Your task to perform on an android device: Open location settings Image 0: 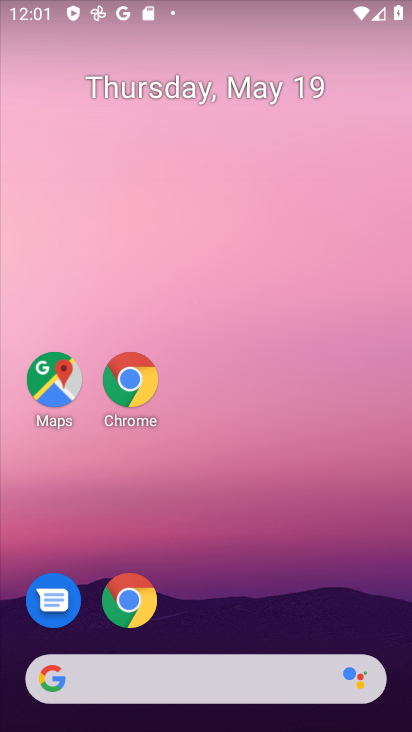
Step 0: drag from (408, 626) to (70, 6)
Your task to perform on an android device: Open location settings Image 1: 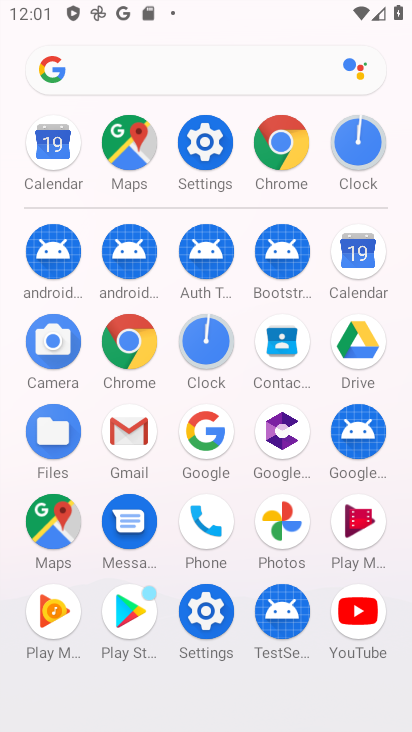
Step 1: click (218, 616)
Your task to perform on an android device: Open location settings Image 2: 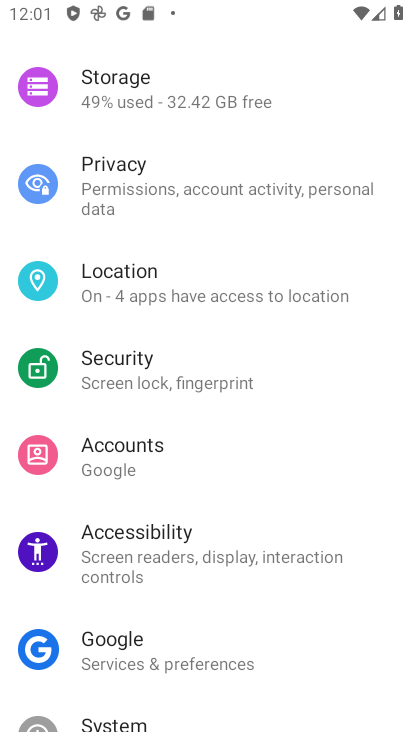
Step 2: click (127, 293)
Your task to perform on an android device: Open location settings Image 3: 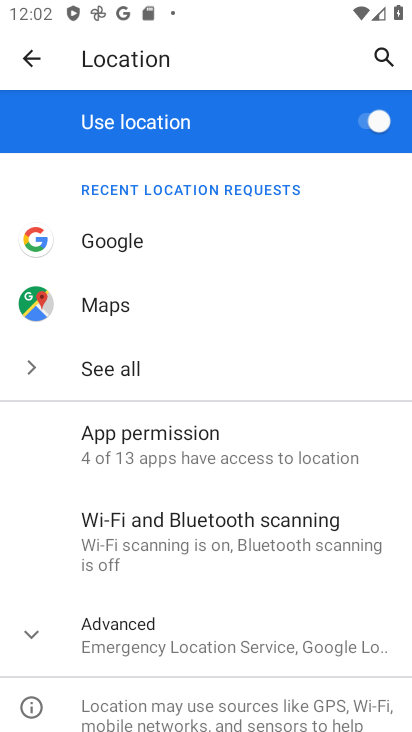
Step 3: click (168, 452)
Your task to perform on an android device: Open location settings Image 4: 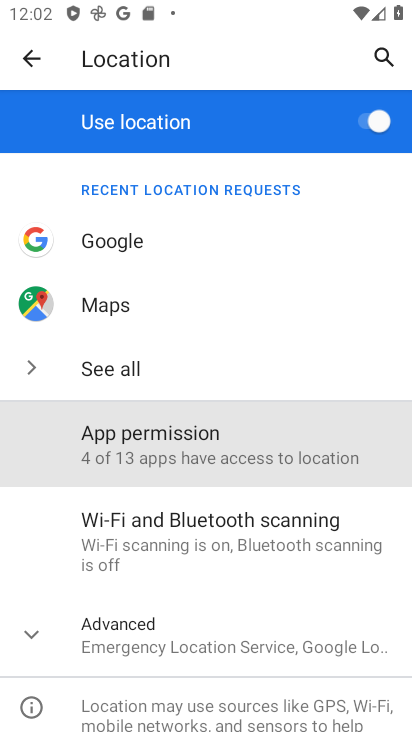
Step 4: click (168, 451)
Your task to perform on an android device: Open location settings Image 5: 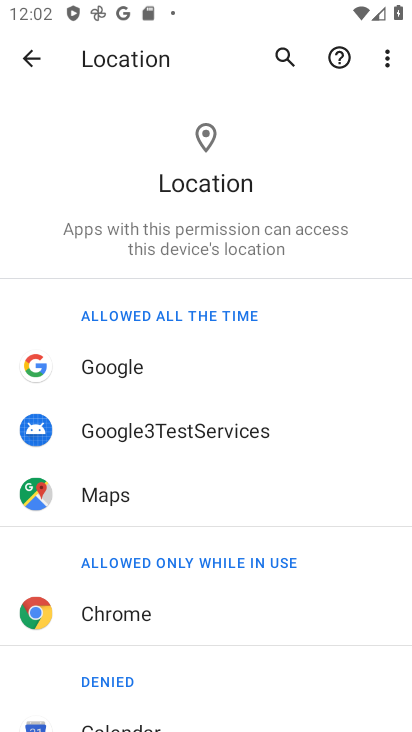
Step 5: click (40, 52)
Your task to perform on an android device: Open location settings Image 6: 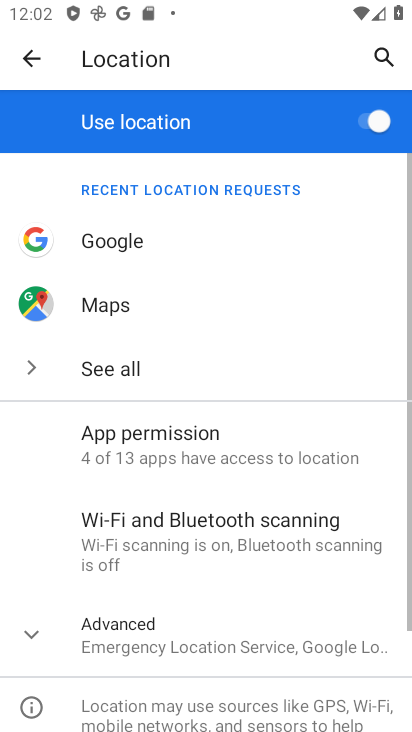
Step 6: click (35, 56)
Your task to perform on an android device: Open location settings Image 7: 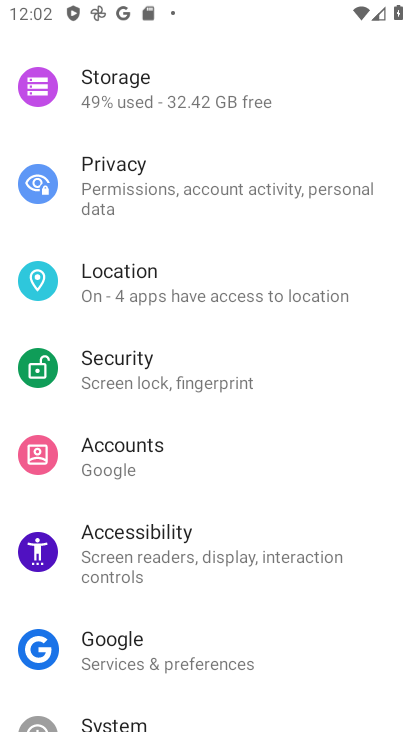
Step 7: click (98, 280)
Your task to perform on an android device: Open location settings Image 8: 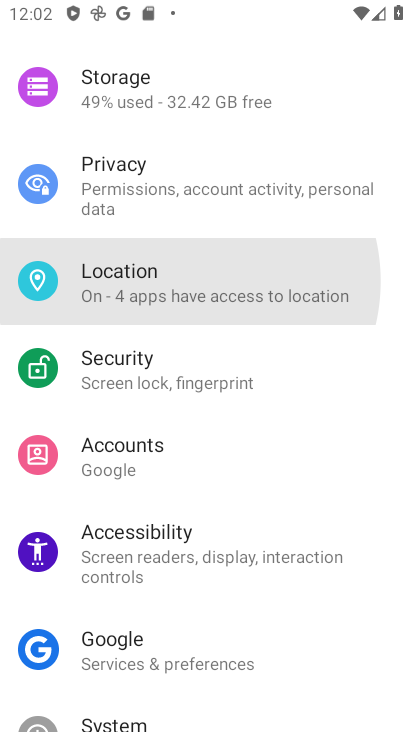
Step 8: click (114, 281)
Your task to perform on an android device: Open location settings Image 9: 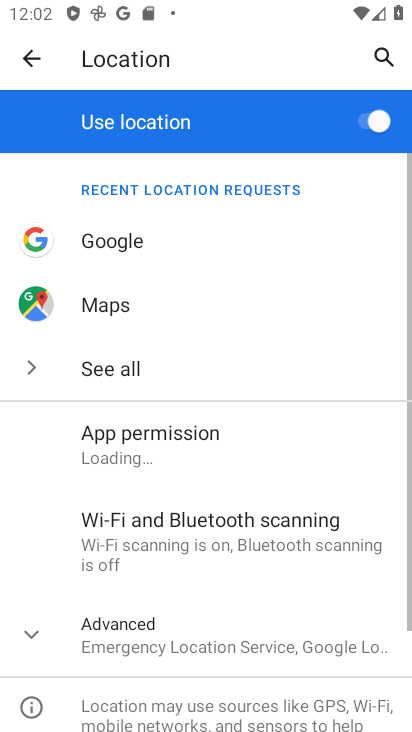
Step 9: drag from (188, 549) to (167, 140)
Your task to perform on an android device: Open location settings Image 10: 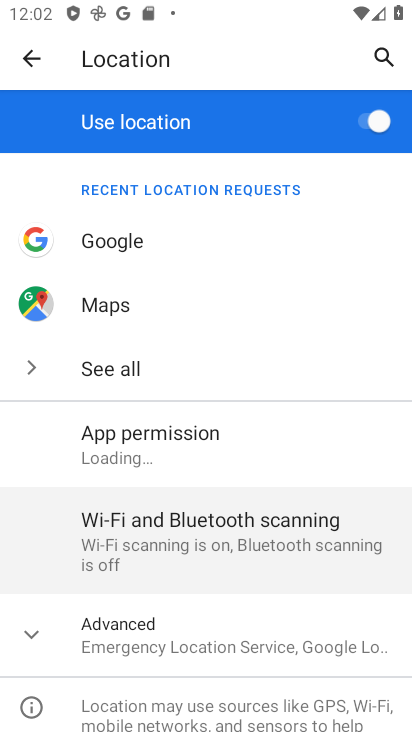
Step 10: drag from (219, 459) to (202, 44)
Your task to perform on an android device: Open location settings Image 11: 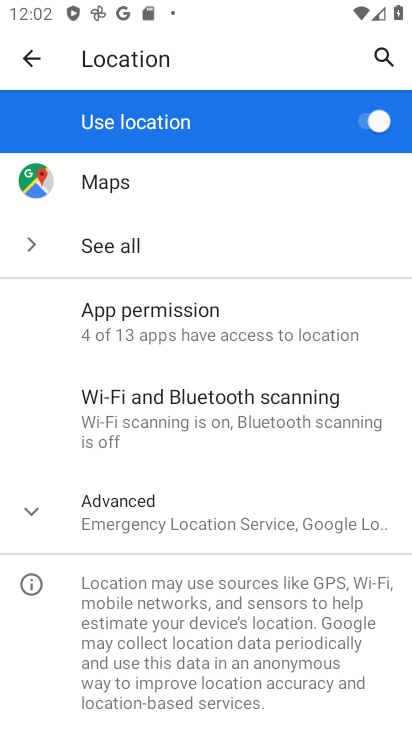
Step 11: click (120, 449)
Your task to perform on an android device: Open location settings Image 12: 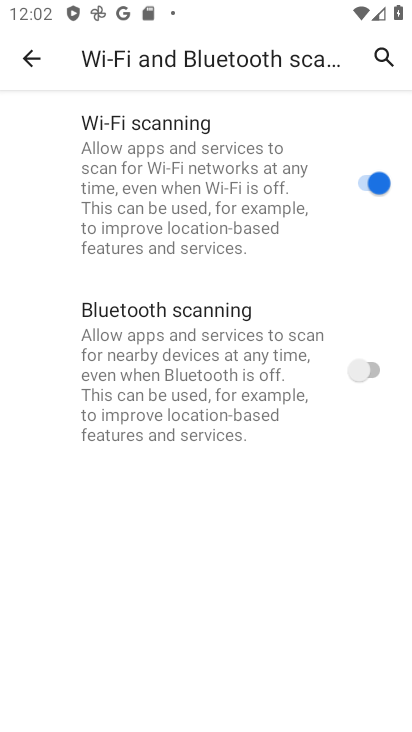
Step 12: click (28, 60)
Your task to perform on an android device: Open location settings Image 13: 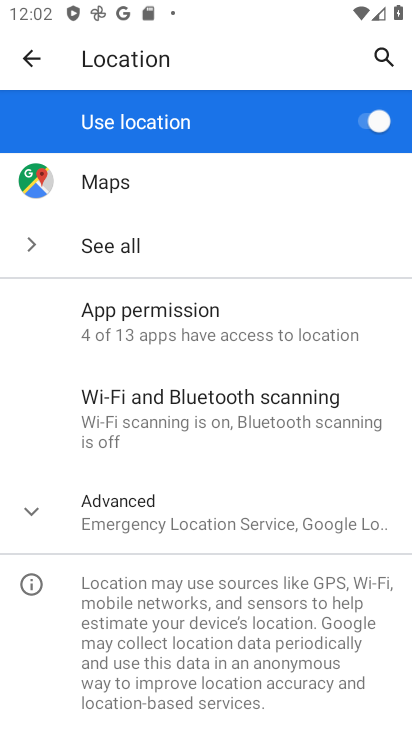
Step 13: click (128, 506)
Your task to perform on an android device: Open location settings Image 14: 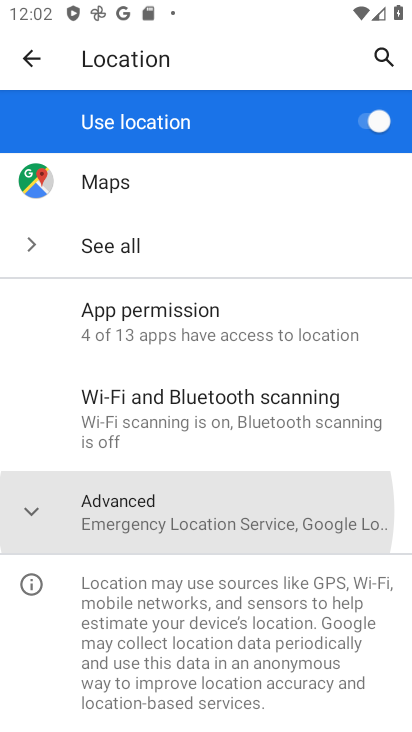
Step 14: click (127, 506)
Your task to perform on an android device: Open location settings Image 15: 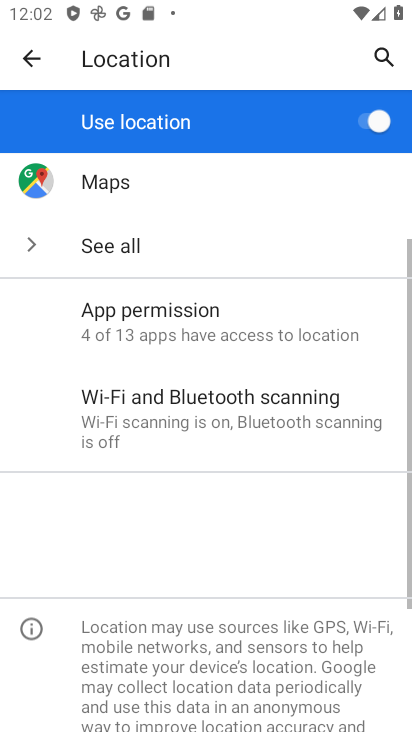
Step 15: click (127, 507)
Your task to perform on an android device: Open location settings Image 16: 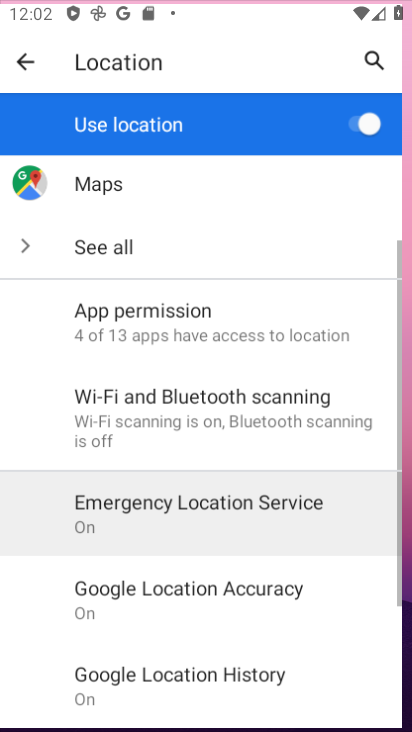
Step 16: click (127, 509)
Your task to perform on an android device: Open location settings Image 17: 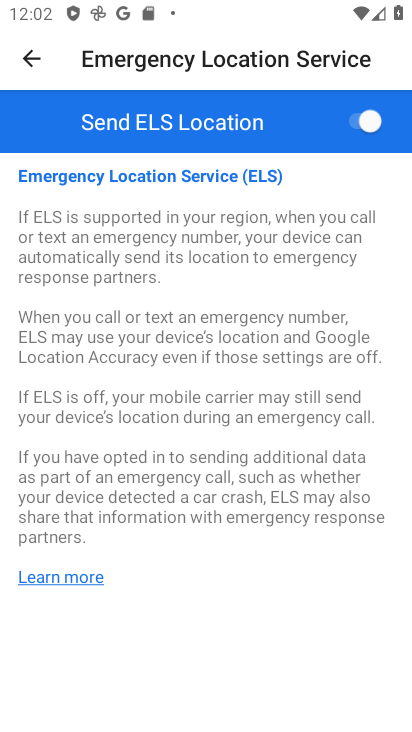
Step 17: click (50, 49)
Your task to perform on an android device: Open location settings Image 18: 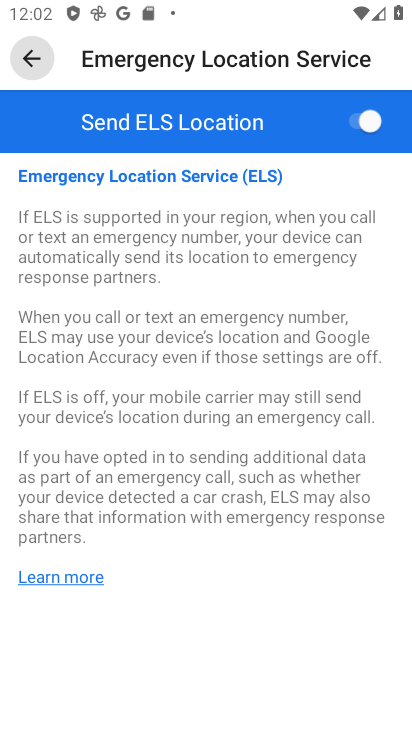
Step 18: click (25, 61)
Your task to perform on an android device: Open location settings Image 19: 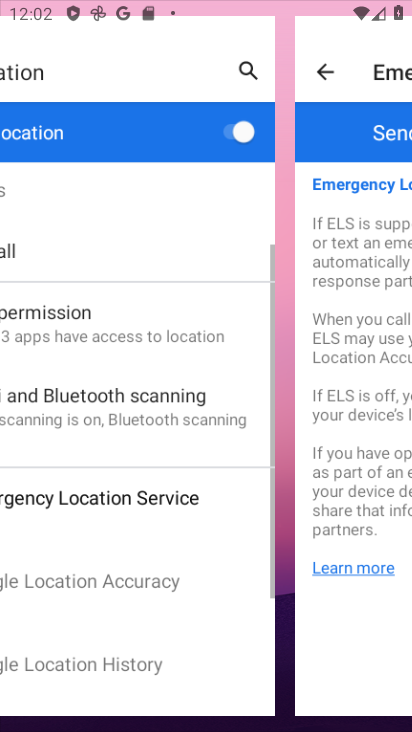
Step 19: click (25, 61)
Your task to perform on an android device: Open location settings Image 20: 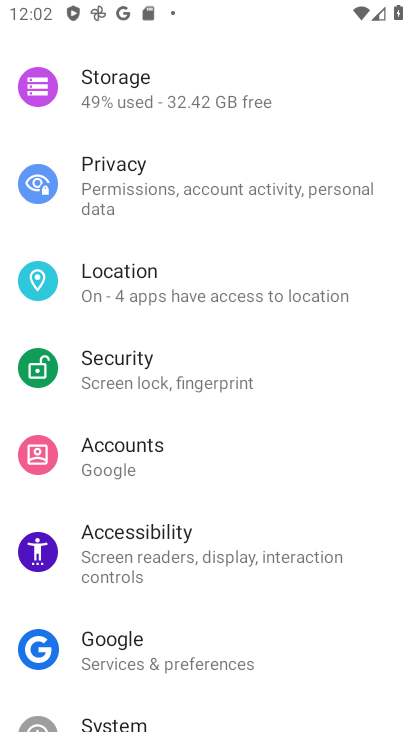
Step 20: drag from (165, 588) to (89, 165)
Your task to perform on an android device: Open location settings Image 21: 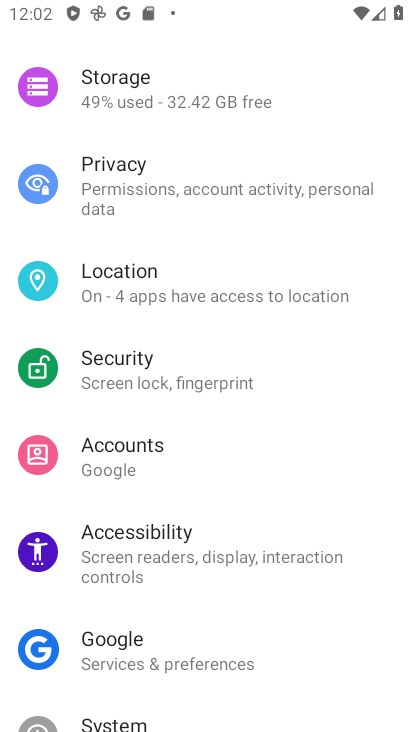
Step 21: drag from (182, 535) to (155, 95)
Your task to perform on an android device: Open location settings Image 22: 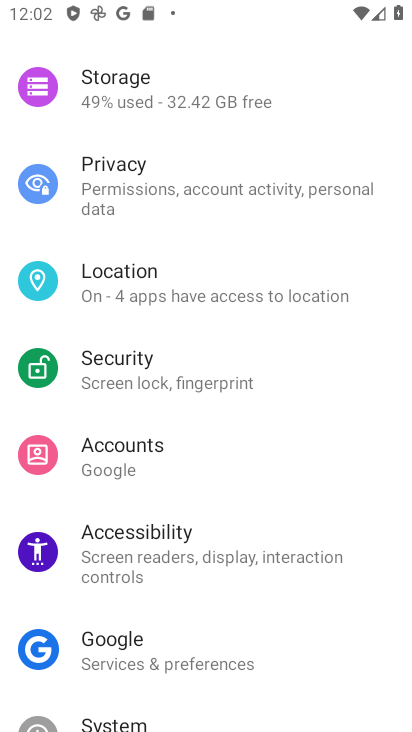
Step 22: drag from (186, 573) to (78, 231)
Your task to perform on an android device: Open location settings Image 23: 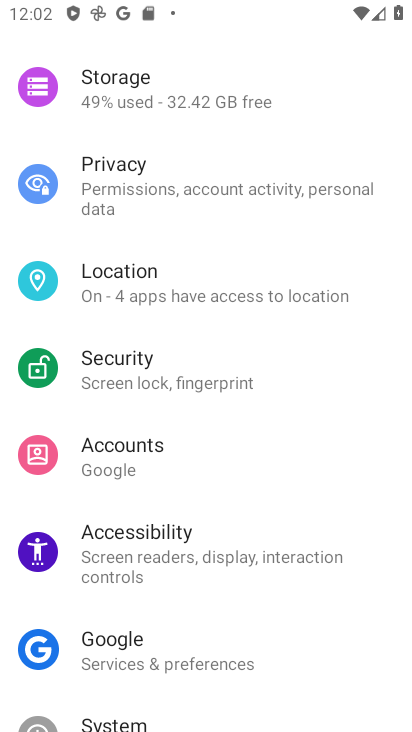
Step 23: drag from (230, 543) to (203, 137)
Your task to perform on an android device: Open location settings Image 24: 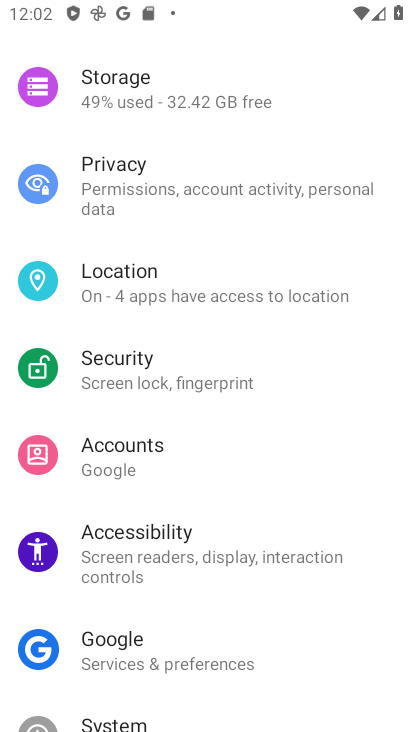
Step 24: drag from (286, 603) to (197, 111)
Your task to perform on an android device: Open location settings Image 25: 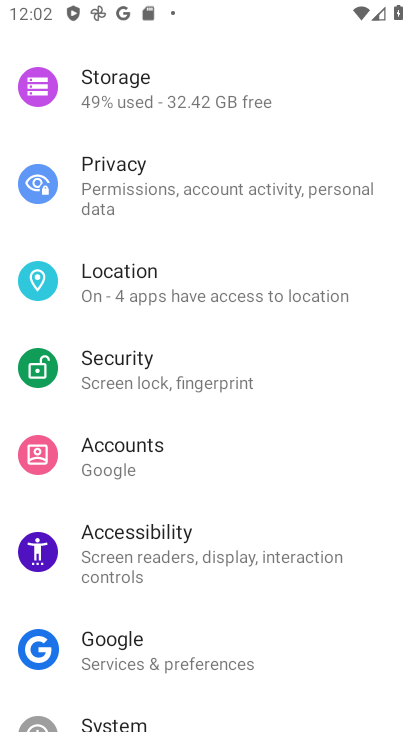
Step 25: drag from (217, 539) to (165, 115)
Your task to perform on an android device: Open location settings Image 26: 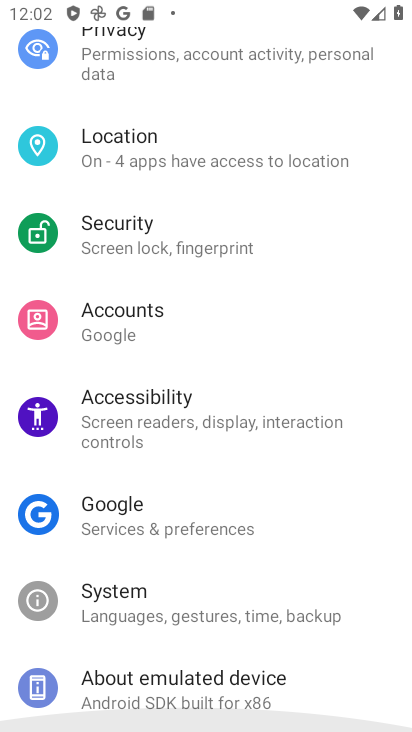
Step 26: drag from (204, 551) to (153, 101)
Your task to perform on an android device: Open location settings Image 27: 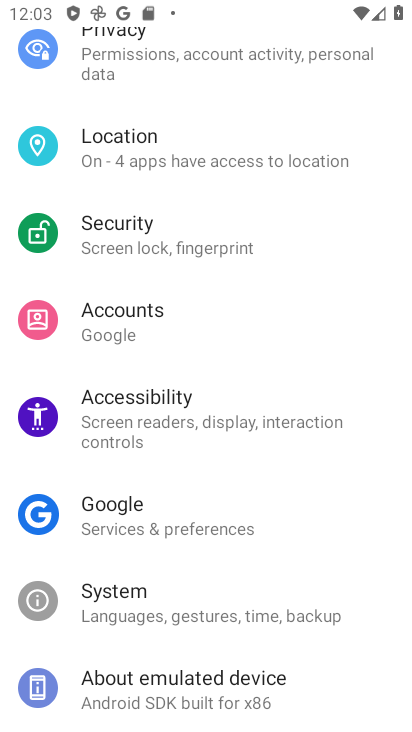
Step 27: drag from (130, 294) to (206, 527)
Your task to perform on an android device: Open location settings Image 28: 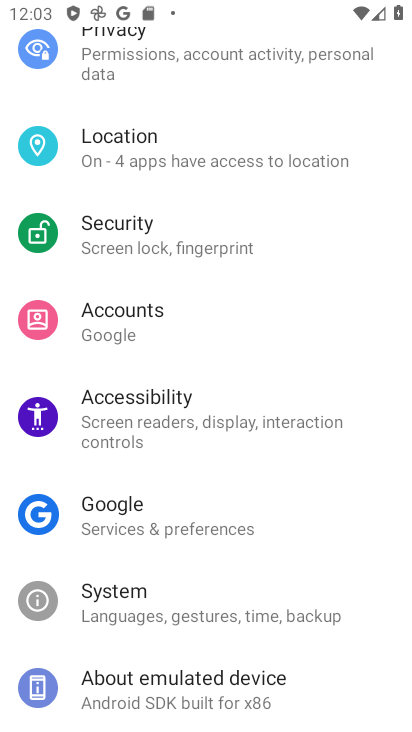
Step 28: click (130, 143)
Your task to perform on an android device: Open location settings Image 29: 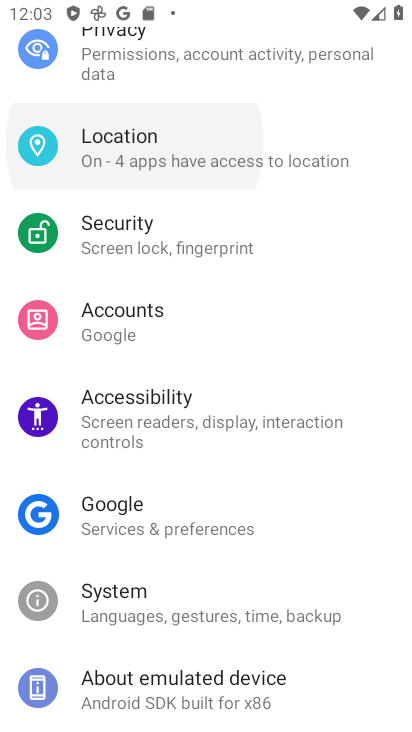
Step 29: click (139, 149)
Your task to perform on an android device: Open location settings Image 30: 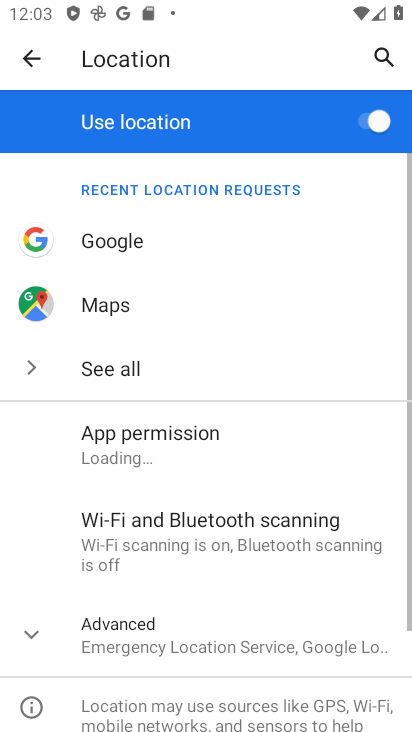
Step 30: drag from (191, 544) to (151, 144)
Your task to perform on an android device: Open location settings Image 31: 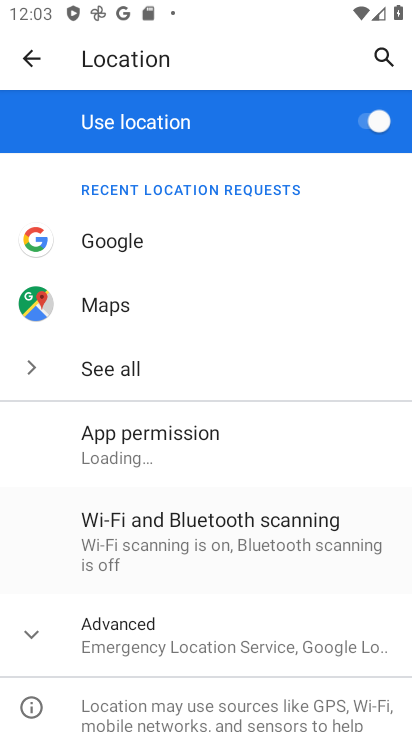
Step 31: drag from (298, 551) to (316, 76)
Your task to perform on an android device: Open location settings Image 32: 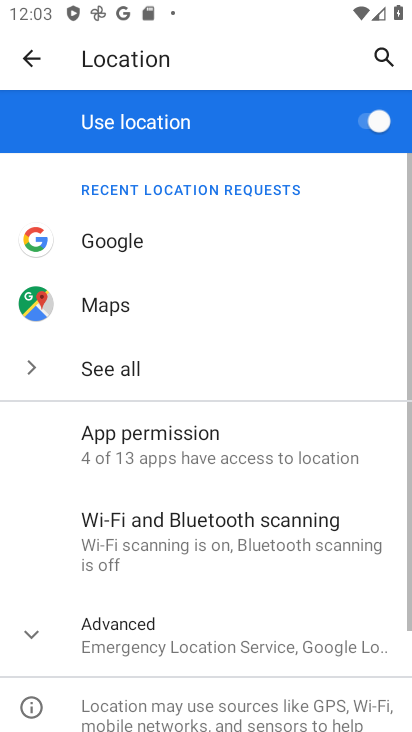
Step 32: drag from (317, 520) to (282, 77)
Your task to perform on an android device: Open location settings Image 33: 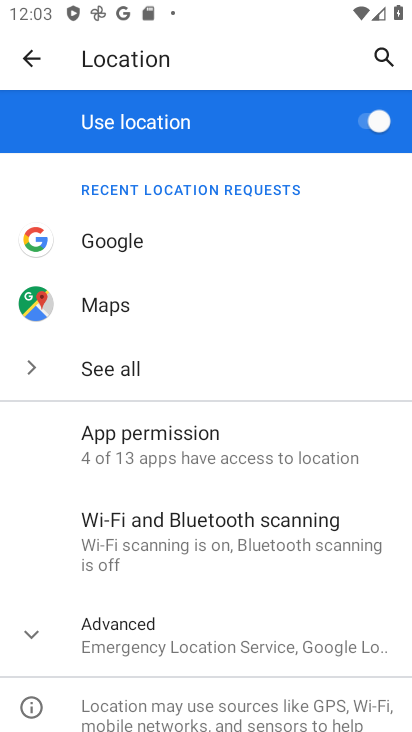
Step 33: click (109, 650)
Your task to perform on an android device: Open location settings Image 34: 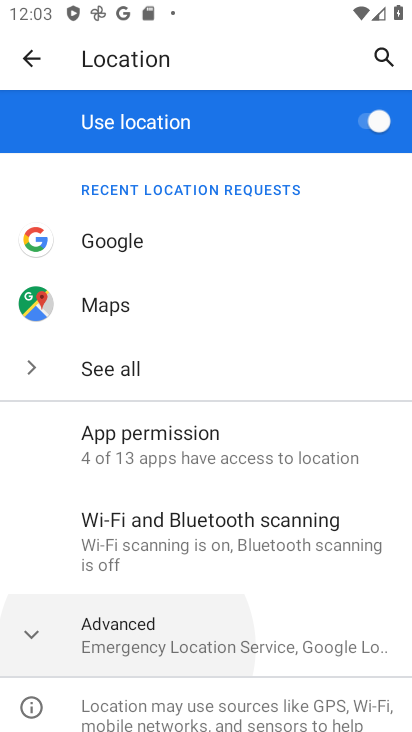
Step 34: click (113, 653)
Your task to perform on an android device: Open location settings Image 35: 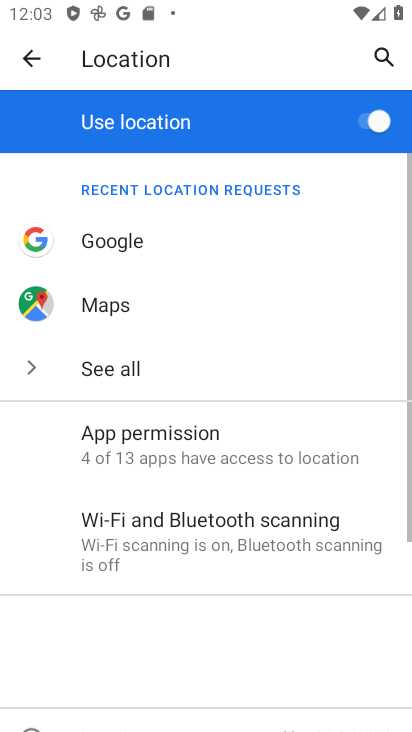
Step 35: click (123, 665)
Your task to perform on an android device: Open location settings Image 36: 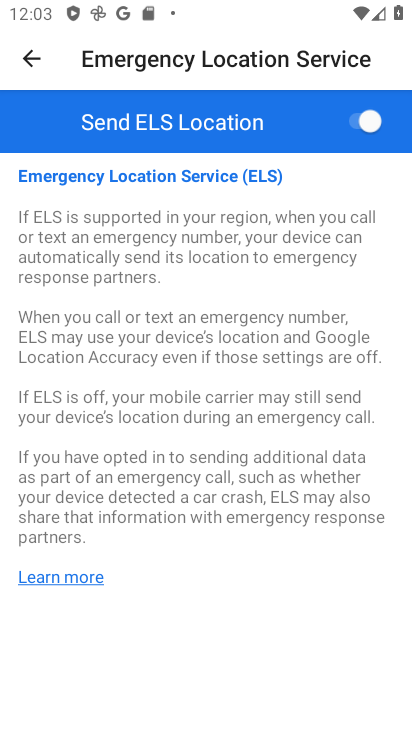
Step 36: click (25, 58)
Your task to perform on an android device: Open location settings Image 37: 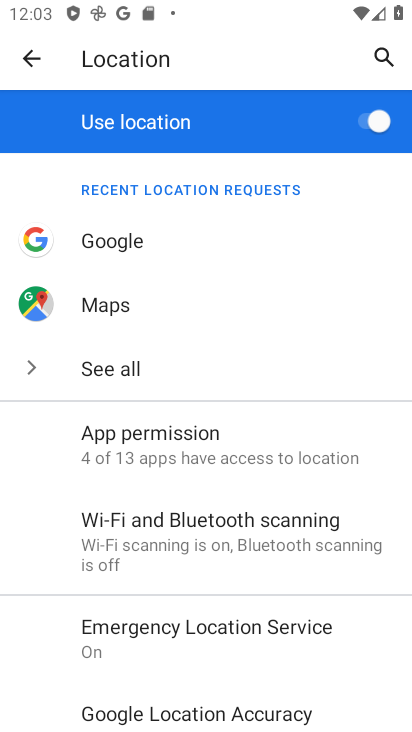
Step 37: task complete